Your task to perform on an android device: find photos in the google photos app Image 0: 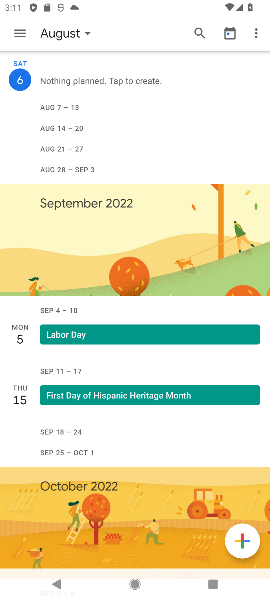
Step 0: press home button
Your task to perform on an android device: find photos in the google photos app Image 1: 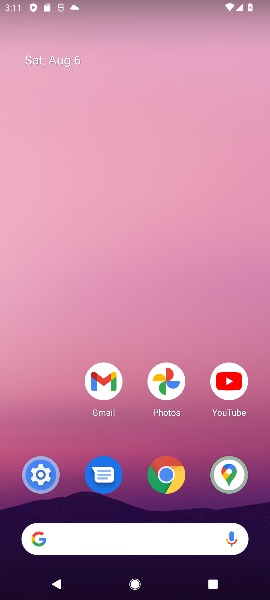
Step 1: click (178, 381)
Your task to perform on an android device: find photos in the google photos app Image 2: 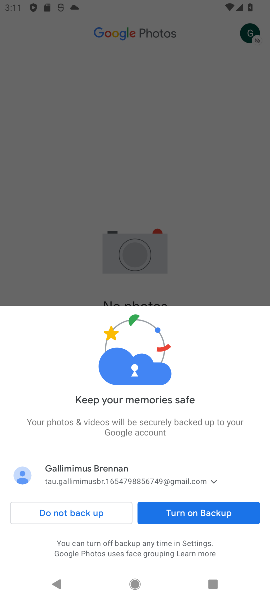
Step 2: click (125, 267)
Your task to perform on an android device: find photos in the google photos app Image 3: 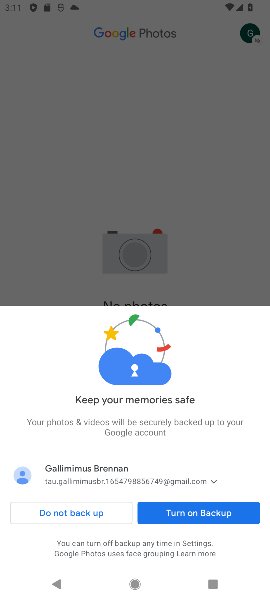
Step 3: click (95, 515)
Your task to perform on an android device: find photos in the google photos app Image 4: 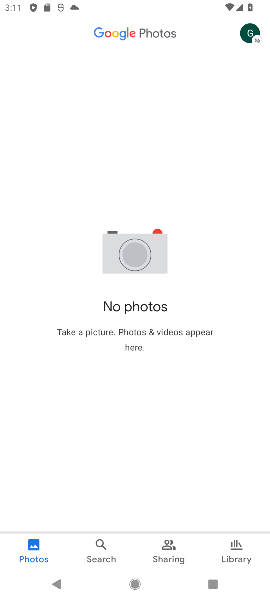
Step 4: task complete